Your task to perform on an android device: change notification settings in the gmail app Image 0: 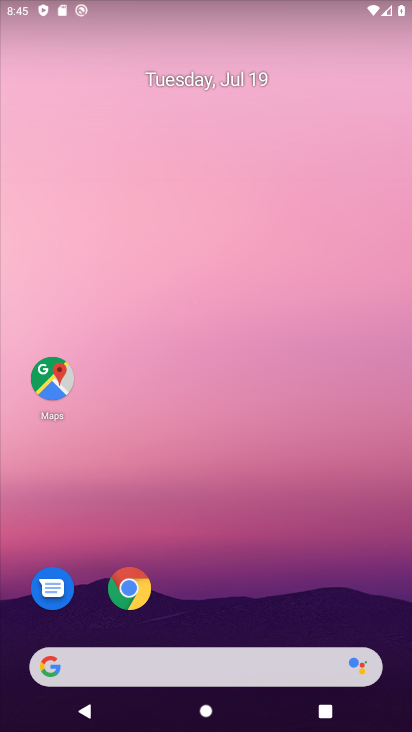
Step 0: drag from (319, 569) to (353, 56)
Your task to perform on an android device: change notification settings in the gmail app Image 1: 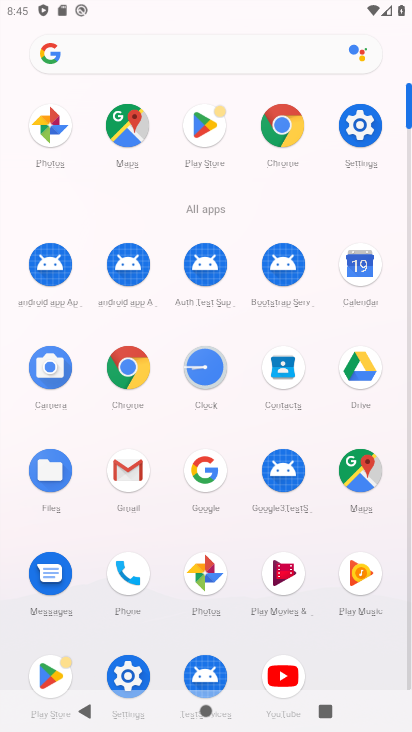
Step 1: click (142, 468)
Your task to perform on an android device: change notification settings in the gmail app Image 2: 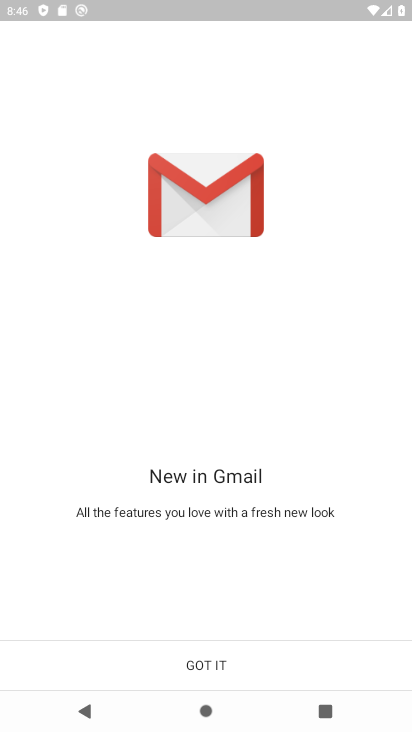
Step 2: click (227, 679)
Your task to perform on an android device: change notification settings in the gmail app Image 3: 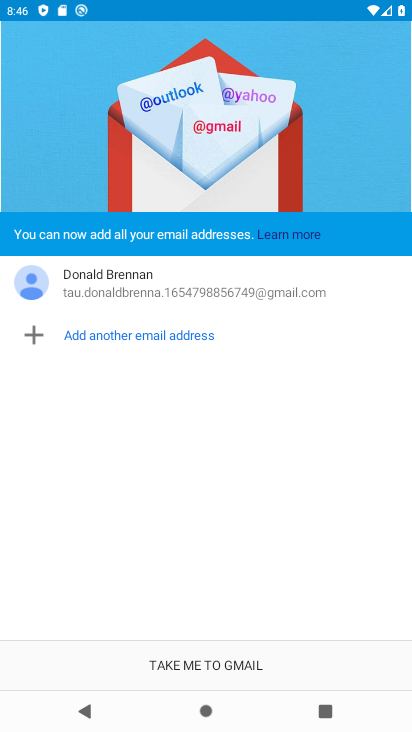
Step 3: click (221, 669)
Your task to perform on an android device: change notification settings in the gmail app Image 4: 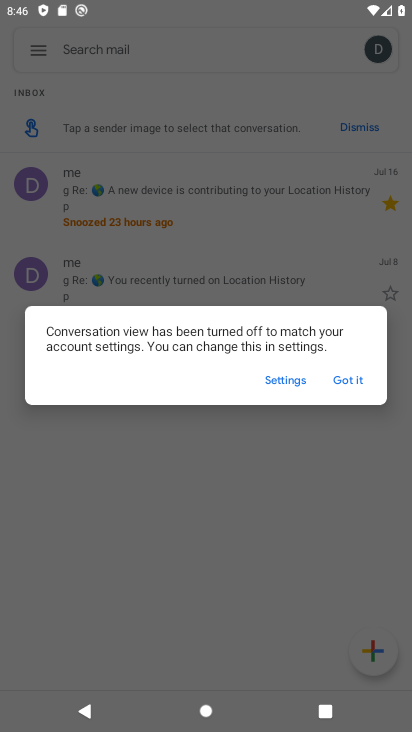
Step 4: click (351, 376)
Your task to perform on an android device: change notification settings in the gmail app Image 5: 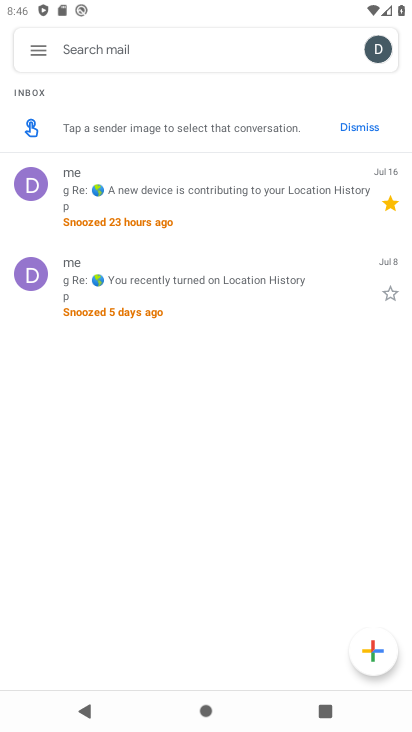
Step 5: click (22, 34)
Your task to perform on an android device: change notification settings in the gmail app Image 6: 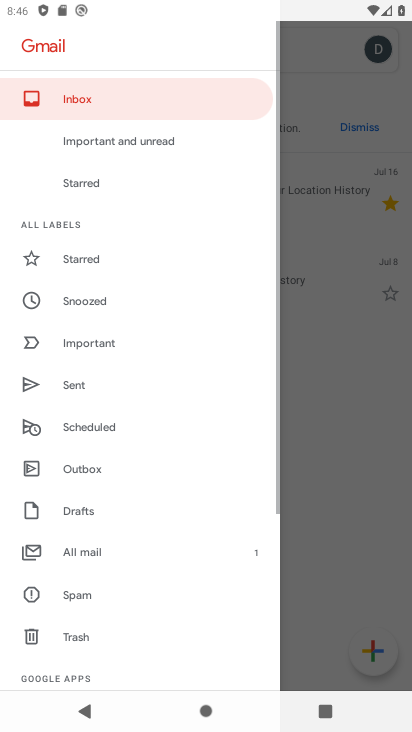
Step 6: drag from (119, 608) to (165, 103)
Your task to perform on an android device: change notification settings in the gmail app Image 7: 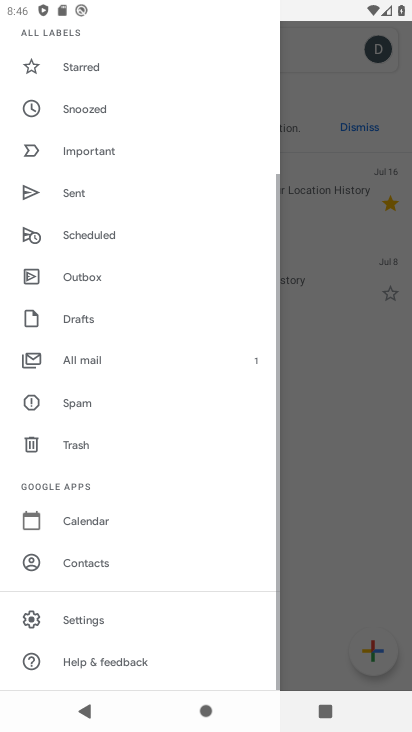
Step 7: click (85, 622)
Your task to perform on an android device: change notification settings in the gmail app Image 8: 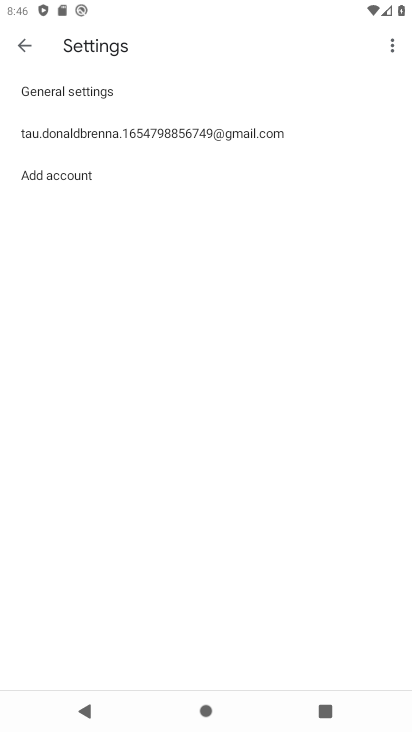
Step 8: click (164, 128)
Your task to perform on an android device: change notification settings in the gmail app Image 9: 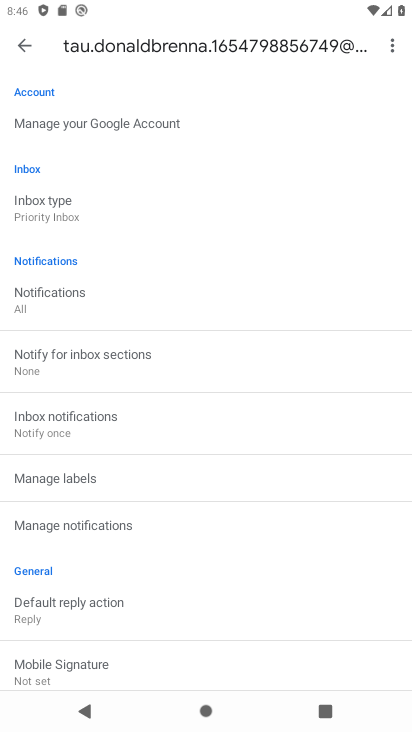
Step 9: click (51, 299)
Your task to perform on an android device: change notification settings in the gmail app Image 10: 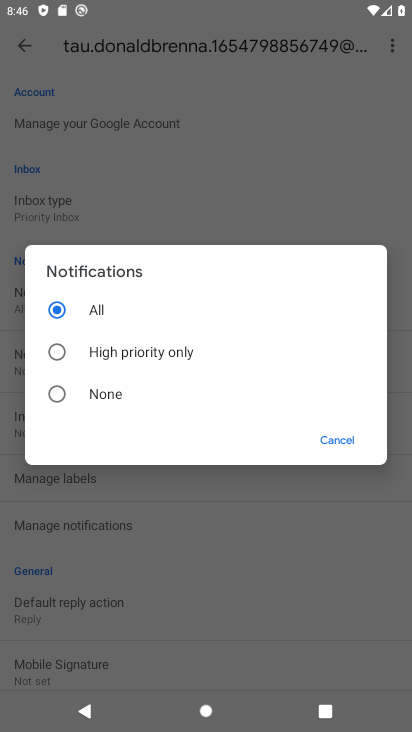
Step 10: click (102, 352)
Your task to perform on an android device: change notification settings in the gmail app Image 11: 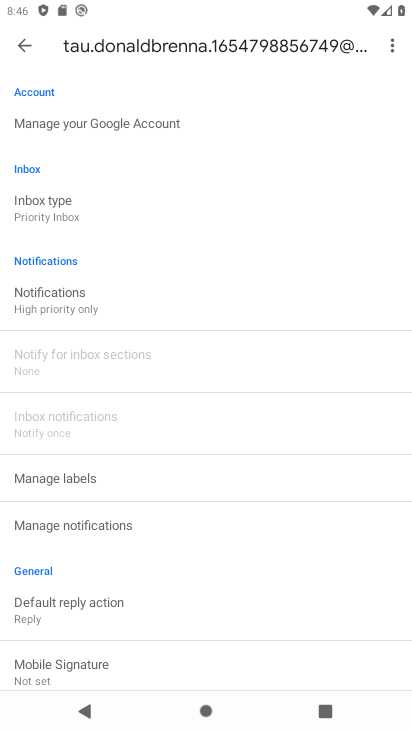
Step 11: task complete